Your task to perform on an android device: Go to Maps Image 0: 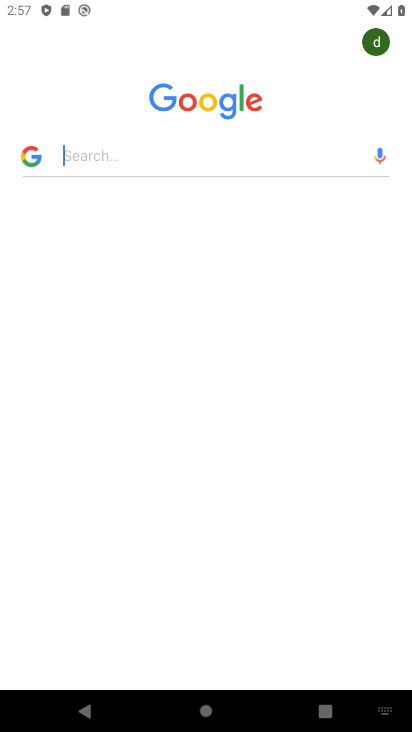
Step 0: press back button
Your task to perform on an android device: Go to Maps Image 1: 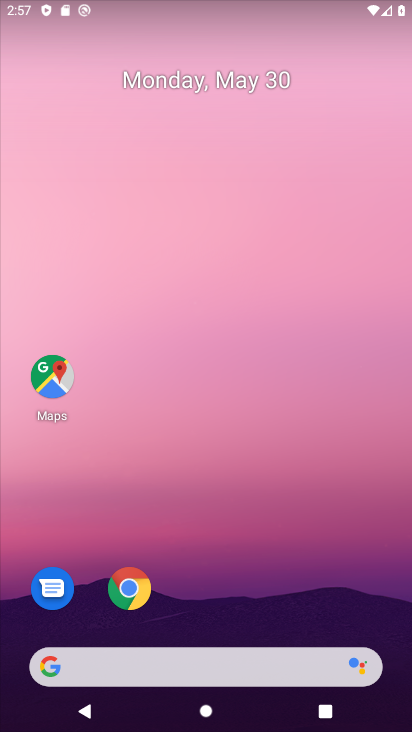
Step 1: drag from (280, 556) to (227, 30)
Your task to perform on an android device: Go to Maps Image 2: 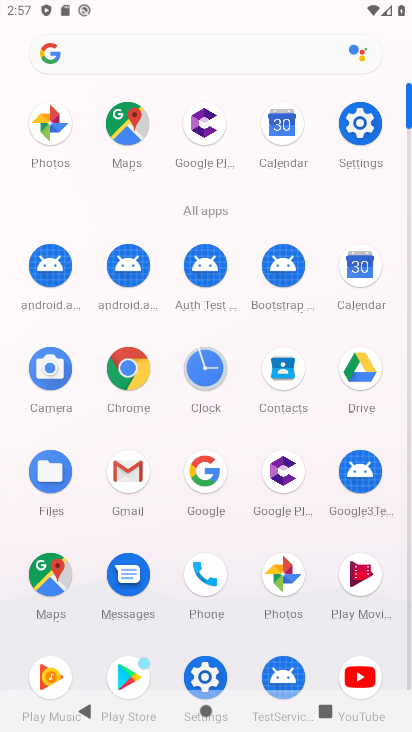
Step 2: drag from (18, 546) to (15, 235)
Your task to perform on an android device: Go to Maps Image 3: 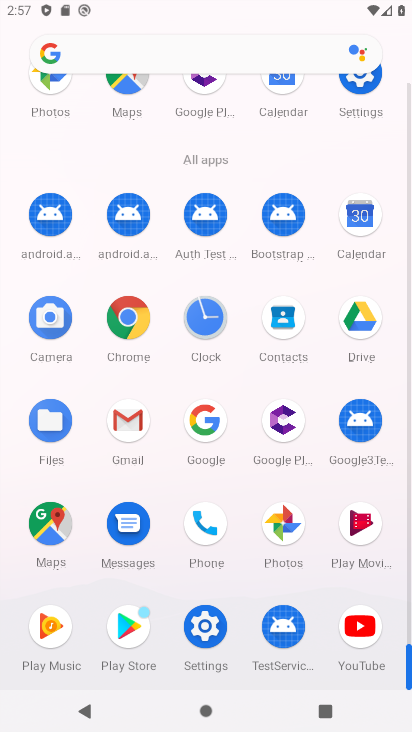
Step 3: click (52, 522)
Your task to perform on an android device: Go to Maps Image 4: 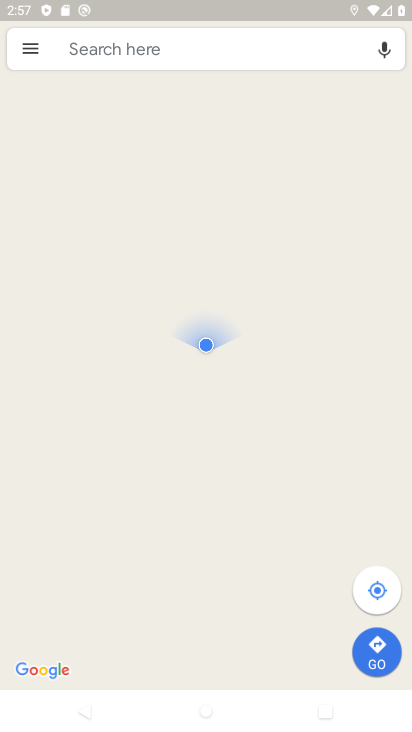
Step 4: click (184, 36)
Your task to perform on an android device: Go to Maps Image 5: 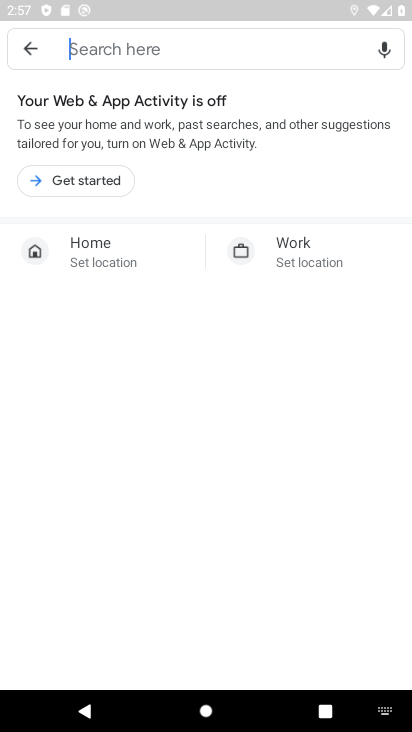
Step 5: click (21, 45)
Your task to perform on an android device: Go to Maps Image 6: 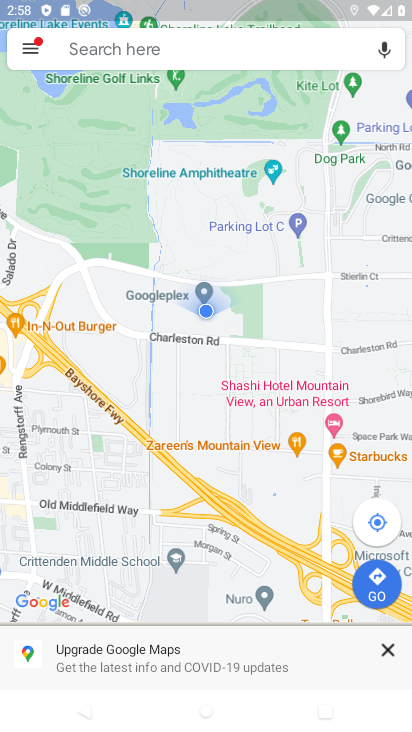
Step 6: task complete